Your task to perform on an android device: turn off location Image 0: 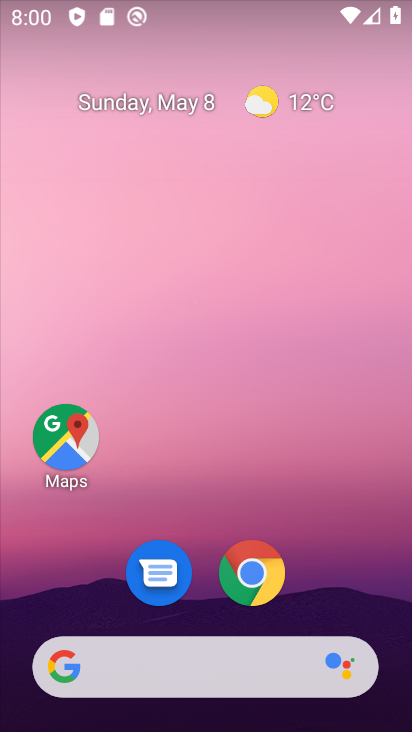
Step 0: drag from (210, 727) to (204, 231)
Your task to perform on an android device: turn off location Image 1: 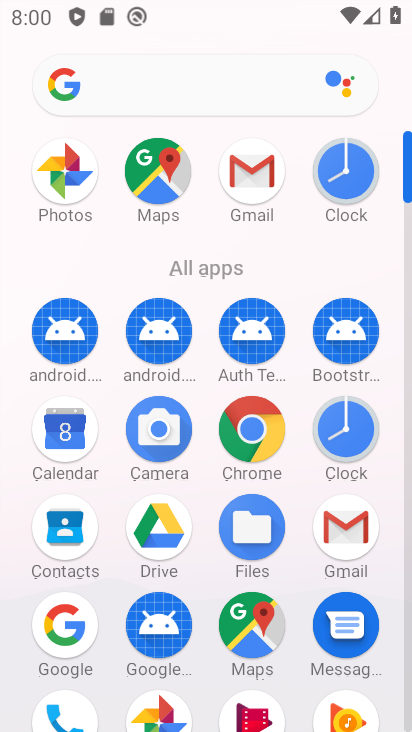
Step 1: drag from (197, 534) to (199, 183)
Your task to perform on an android device: turn off location Image 2: 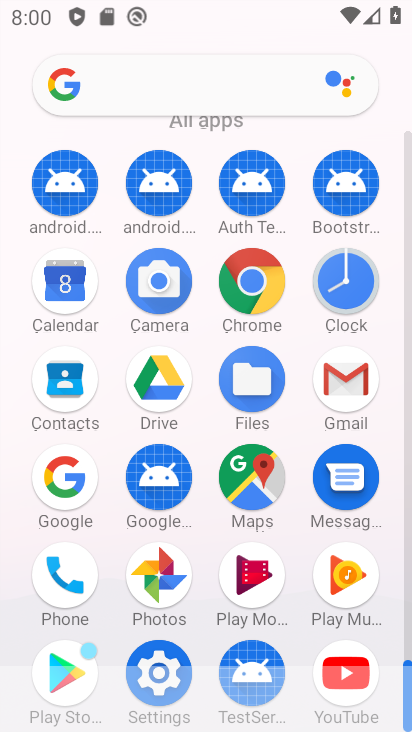
Step 2: click (168, 658)
Your task to perform on an android device: turn off location Image 3: 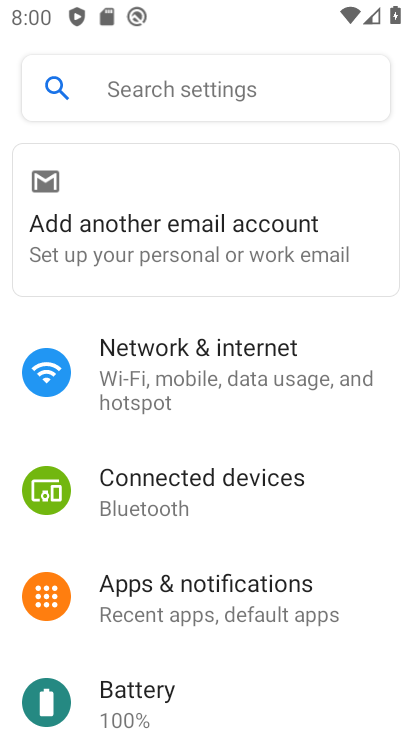
Step 3: drag from (188, 661) to (201, 445)
Your task to perform on an android device: turn off location Image 4: 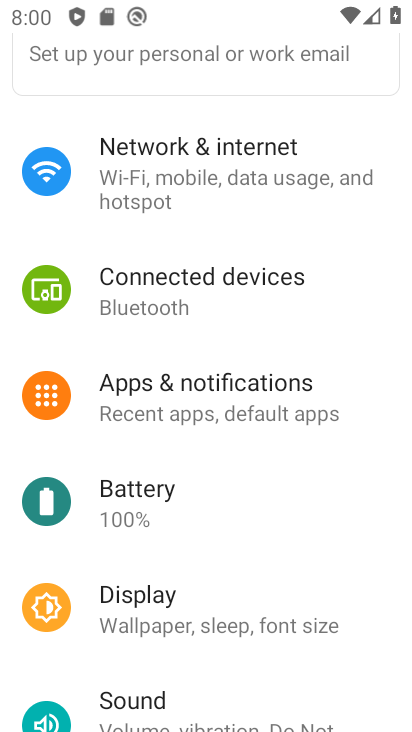
Step 4: drag from (191, 674) to (192, 455)
Your task to perform on an android device: turn off location Image 5: 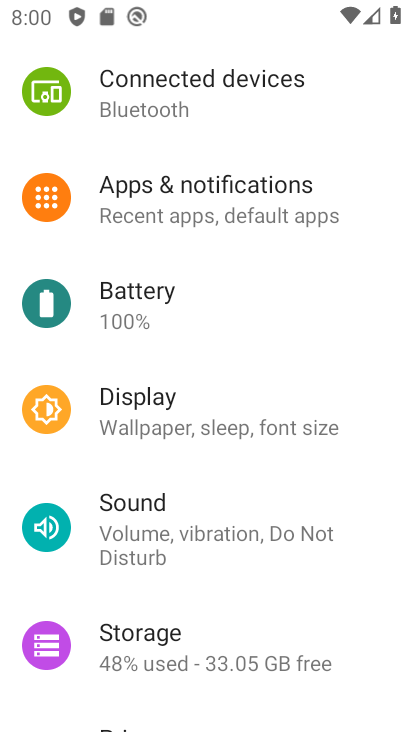
Step 5: drag from (174, 690) to (170, 452)
Your task to perform on an android device: turn off location Image 6: 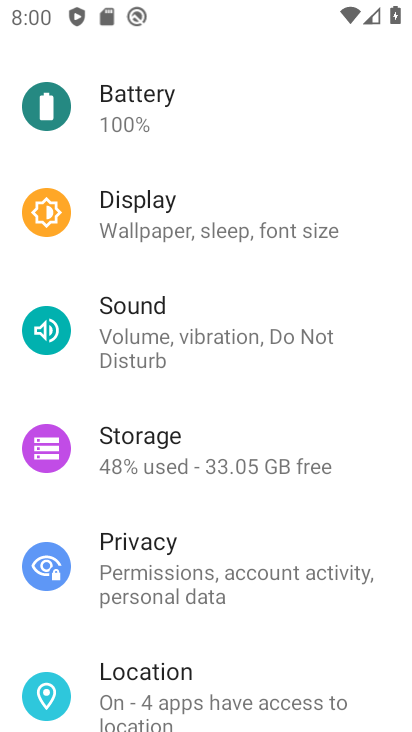
Step 6: click (172, 691)
Your task to perform on an android device: turn off location Image 7: 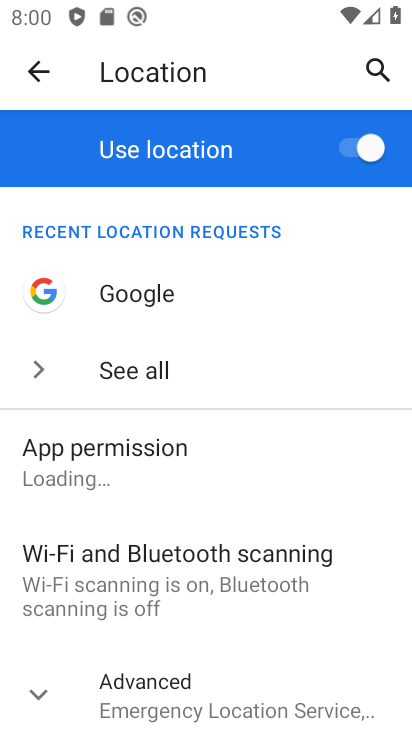
Step 7: click (347, 144)
Your task to perform on an android device: turn off location Image 8: 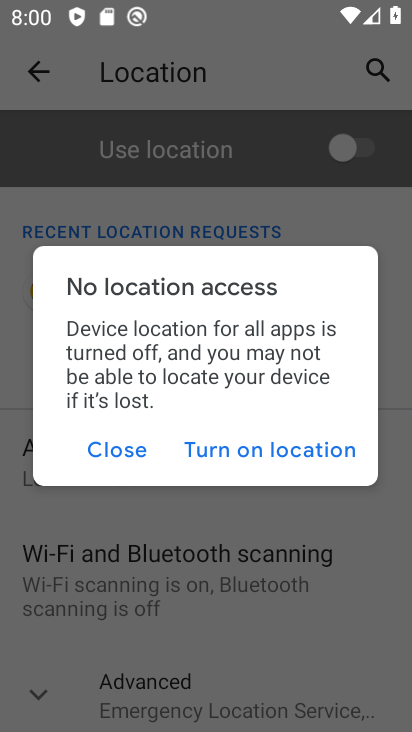
Step 8: click (119, 446)
Your task to perform on an android device: turn off location Image 9: 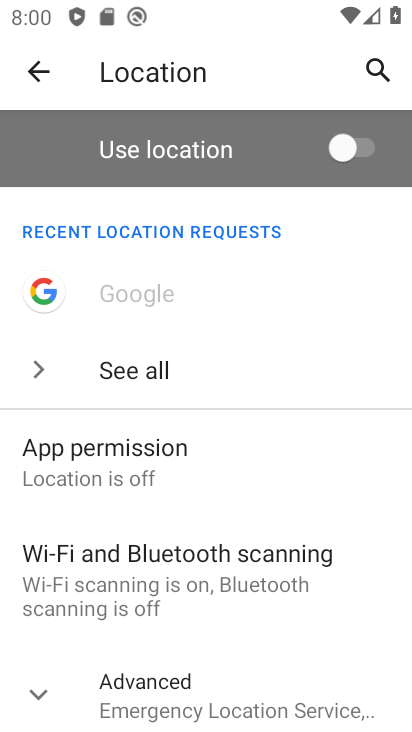
Step 9: task complete